Your task to perform on an android device: Go to display settings Image 0: 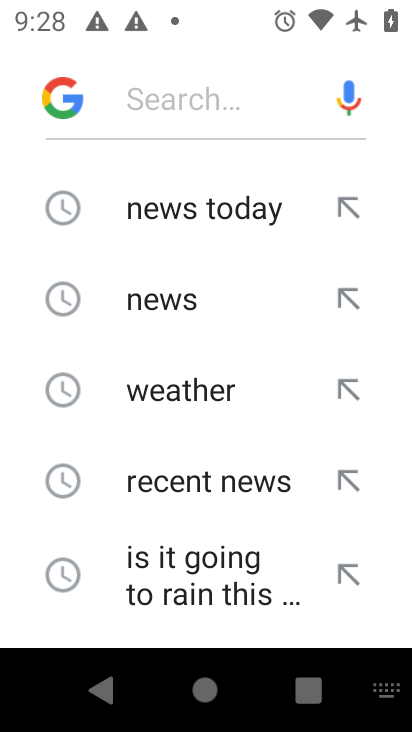
Step 0: press home button
Your task to perform on an android device: Go to display settings Image 1: 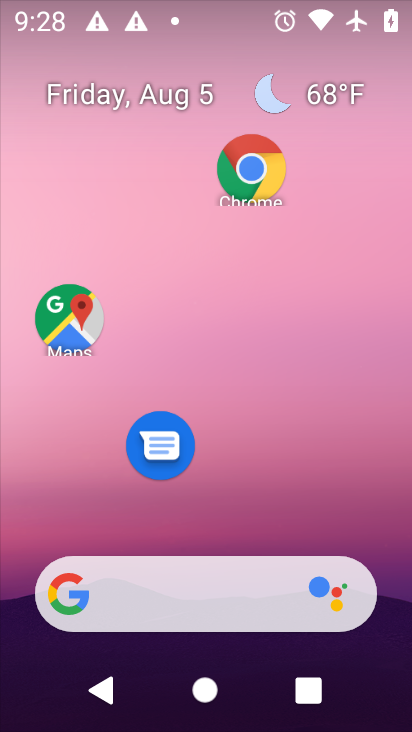
Step 1: drag from (211, 327) to (192, 192)
Your task to perform on an android device: Go to display settings Image 2: 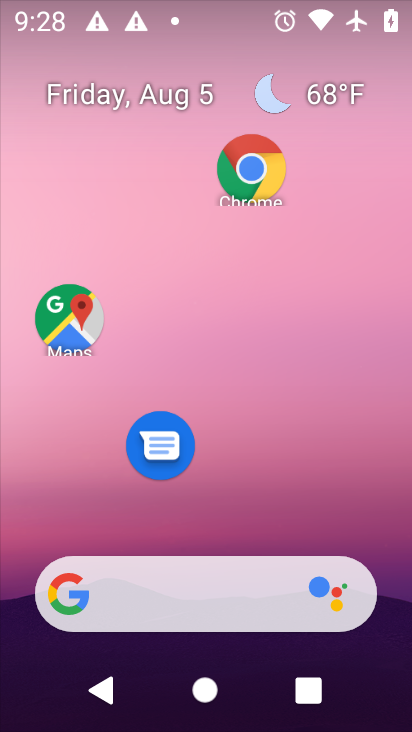
Step 2: drag from (203, 492) to (194, 127)
Your task to perform on an android device: Go to display settings Image 3: 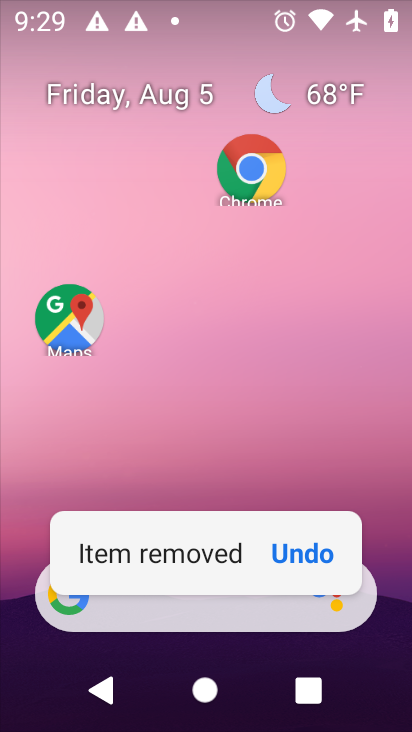
Step 3: click (216, 379)
Your task to perform on an android device: Go to display settings Image 4: 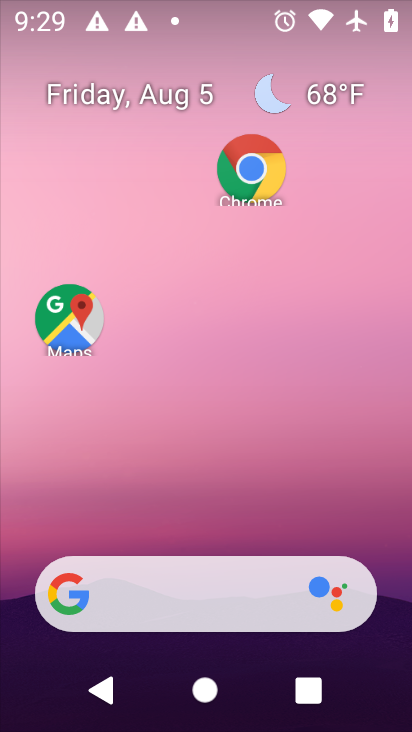
Step 4: drag from (194, 503) to (174, 113)
Your task to perform on an android device: Go to display settings Image 5: 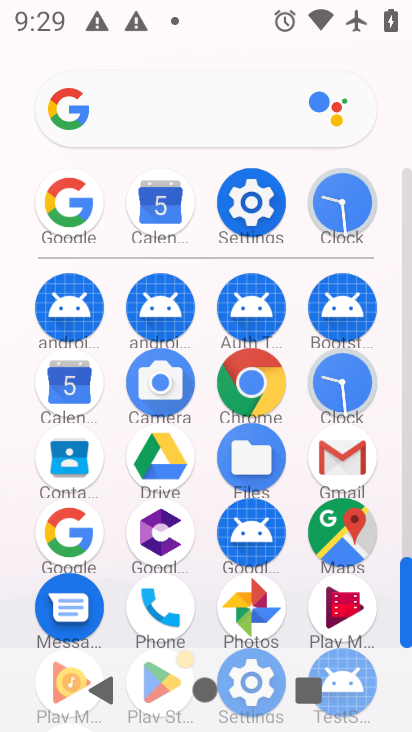
Step 5: click (255, 198)
Your task to perform on an android device: Go to display settings Image 6: 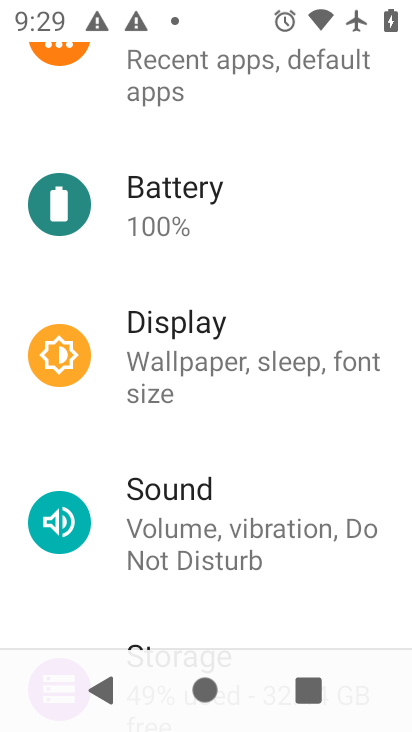
Step 6: click (220, 331)
Your task to perform on an android device: Go to display settings Image 7: 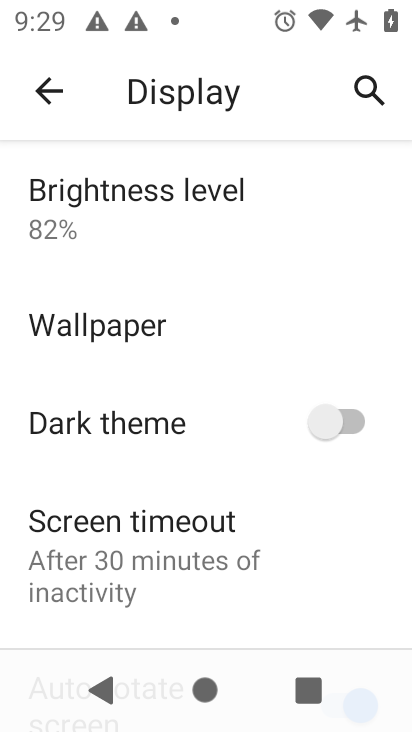
Step 7: task complete